Your task to perform on an android device: check the backup settings in the google photos Image 0: 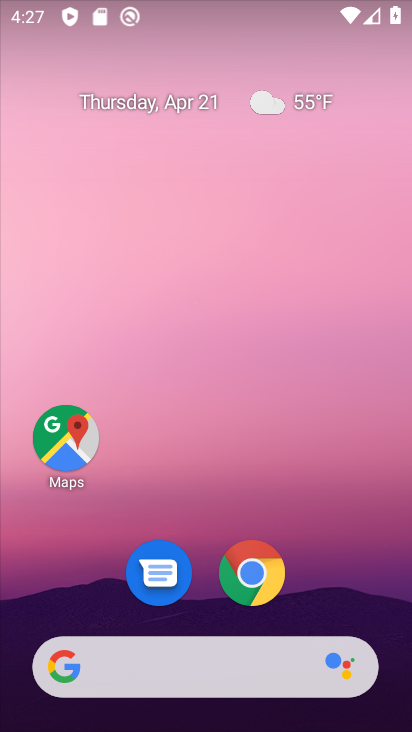
Step 0: drag from (328, 600) to (252, 23)
Your task to perform on an android device: check the backup settings in the google photos Image 1: 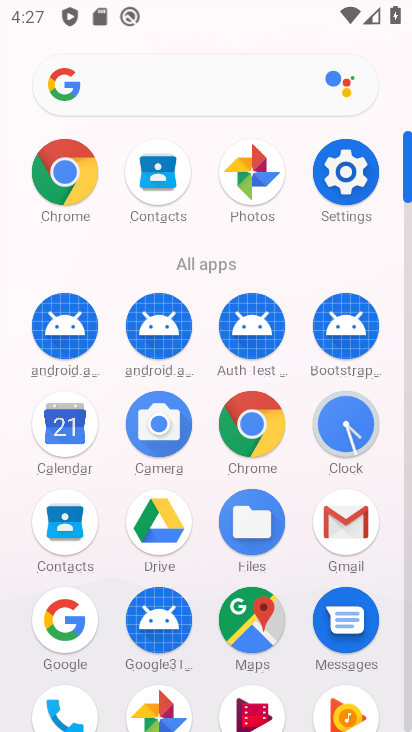
Step 1: click (269, 182)
Your task to perform on an android device: check the backup settings in the google photos Image 2: 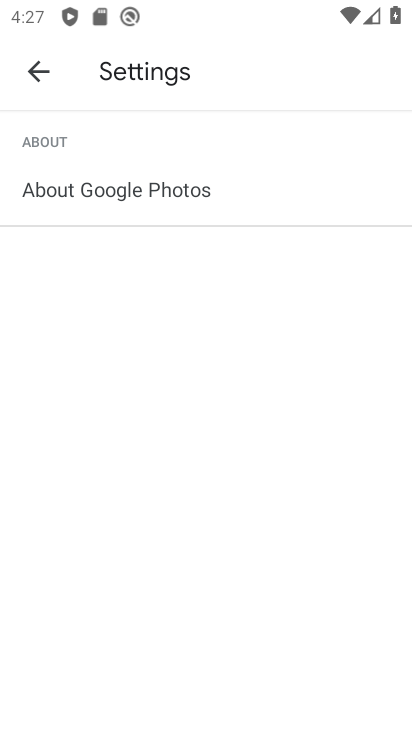
Step 2: press back button
Your task to perform on an android device: check the backup settings in the google photos Image 3: 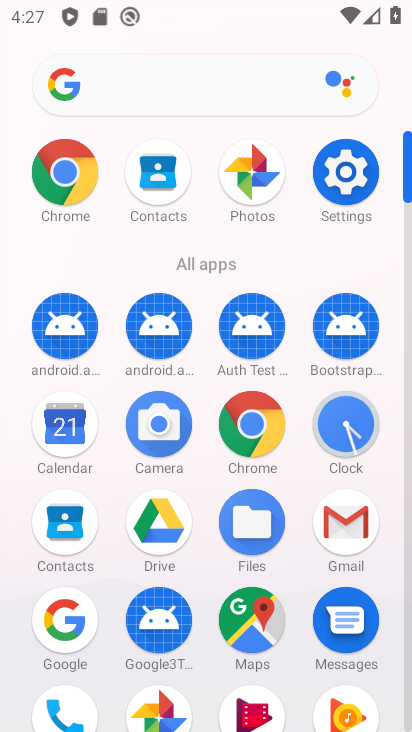
Step 3: click (246, 197)
Your task to perform on an android device: check the backup settings in the google photos Image 4: 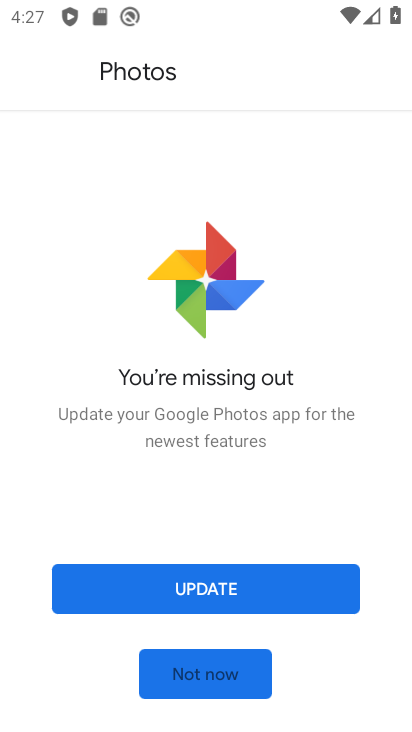
Step 4: click (241, 582)
Your task to perform on an android device: check the backup settings in the google photos Image 5: 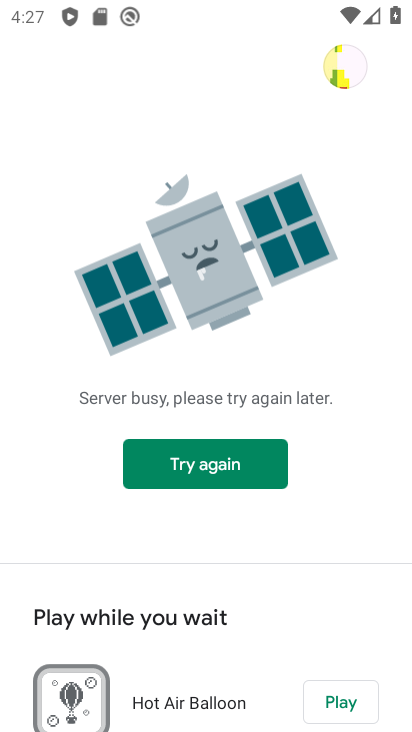
Step 5: click (223, 474)
Your task to perform on an android device: check the backup settings in the google photos Image 6: 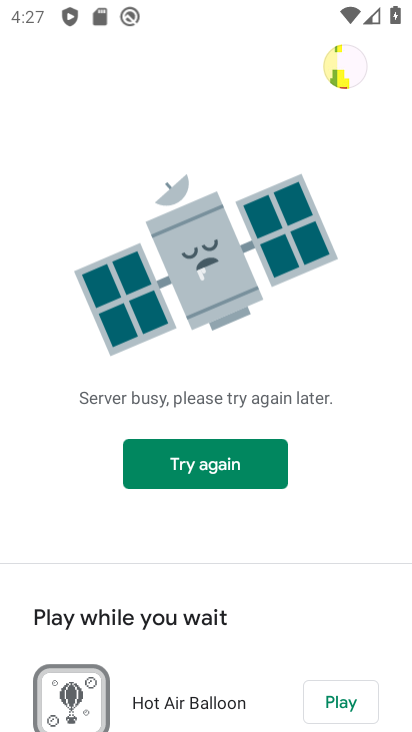
Step 6: task complete